Your task to perform on an android device: Go to Maps Image 0: 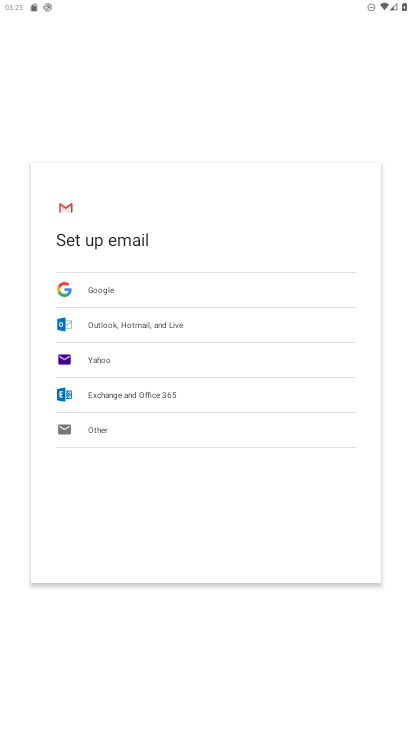
Step 0: press home button
Your task to perform on an android device: Go to Maps Image 1: 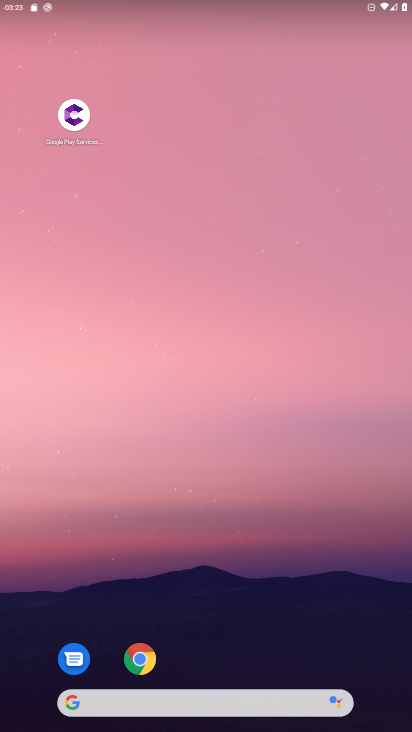
Step 1: drag from (214, 436) to (286, 15)
Your task to perform on an android device: Go to Maps Image 2: 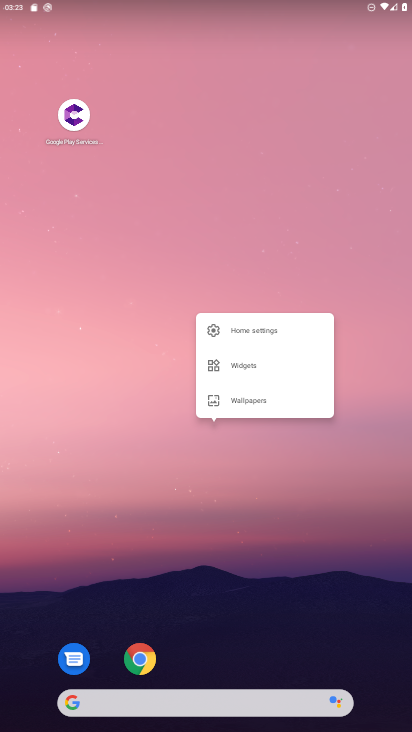
Step 2: drag from (243, 661) to (241, 139)
Your task to perform on an android device: Go to Maps Image 3: 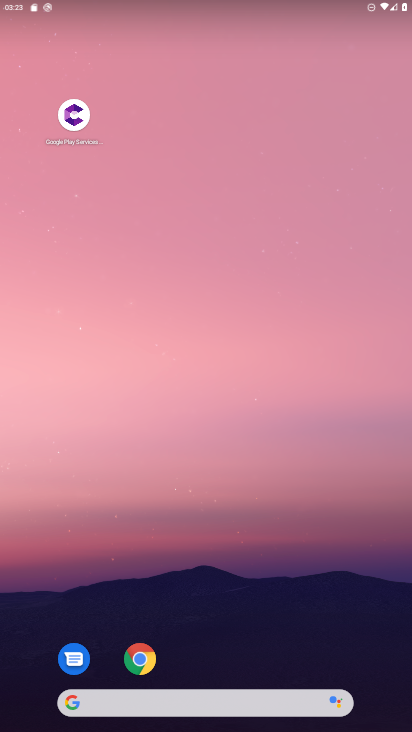
Step 3: click (205, 602)
Your task to perform on an android device: Go to Maps Image 4: 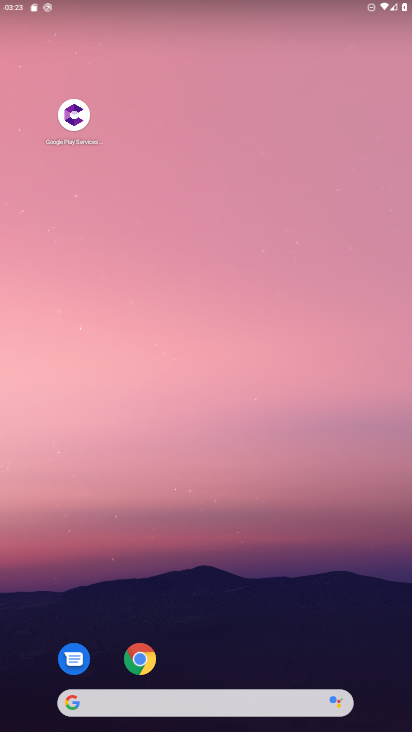
Step 4: click (236, 551)
Your task to perform on an android device: Go to Maps Image 5: 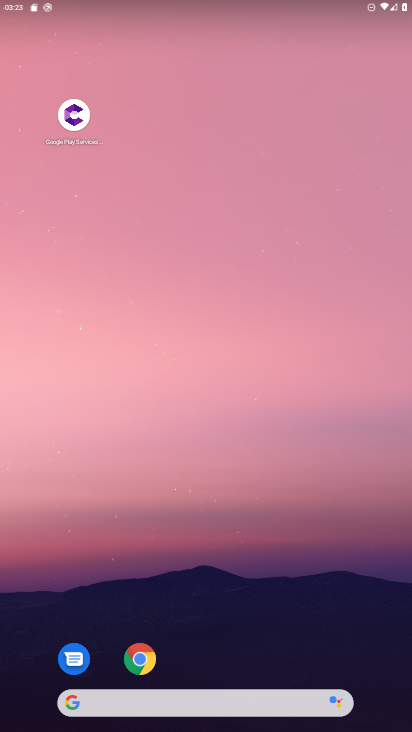
Step 5: click (302, 551)
Your task to perform on an android device: Go to Maps Image 6: 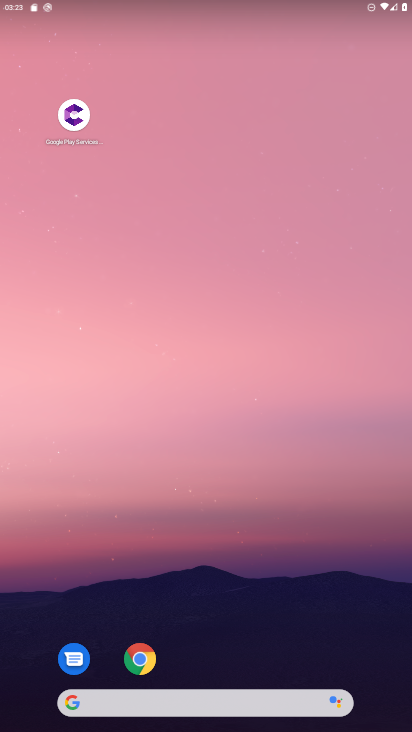
Step 6: click (133, 466)
Your task to perform on an android device: Go to Maps Image 7: 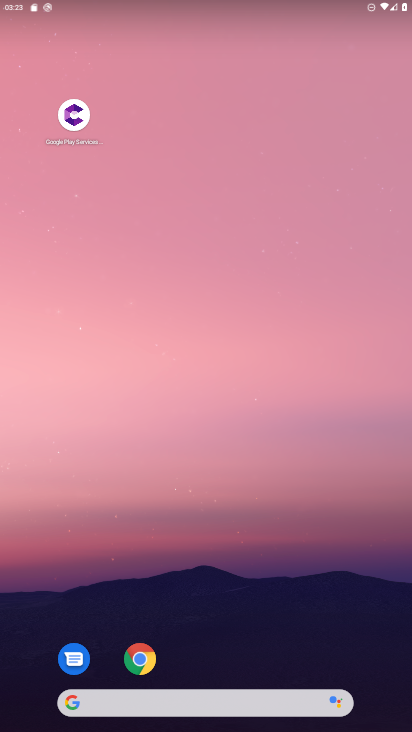
Step 7: drag from (212, 430) to (240, 4)
Your task to perform on an android device: Go to Maps Image 8: 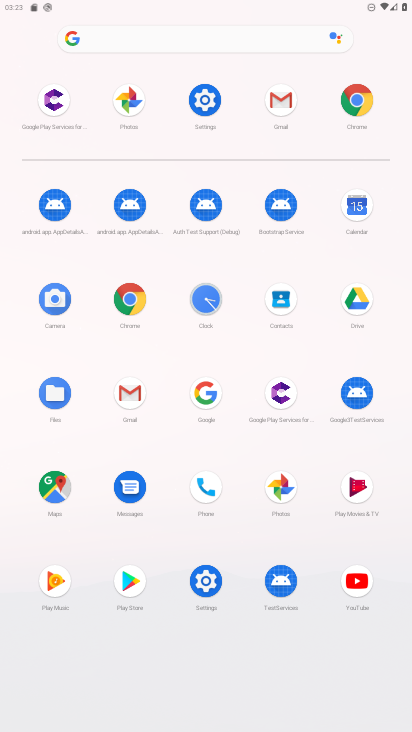
Step 8: click (44, 498)
Your task to perform on an android device: Go to Maps Image 9: 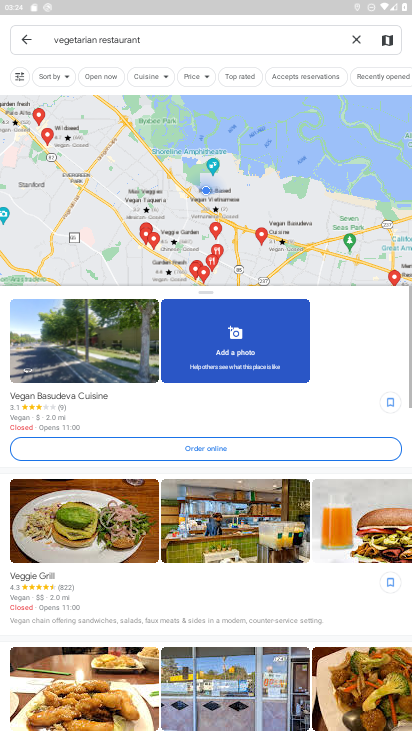
Step 9: task complete